Your task to perform on an android device: Search for pizza restaurants on Maps Image 0: 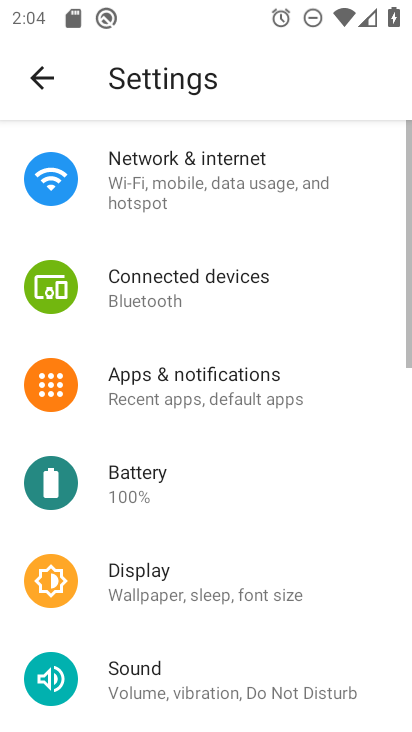
Step 0: press home button
Your task to perform on an android device: Search for pizza restaurants on Maps Image 1: 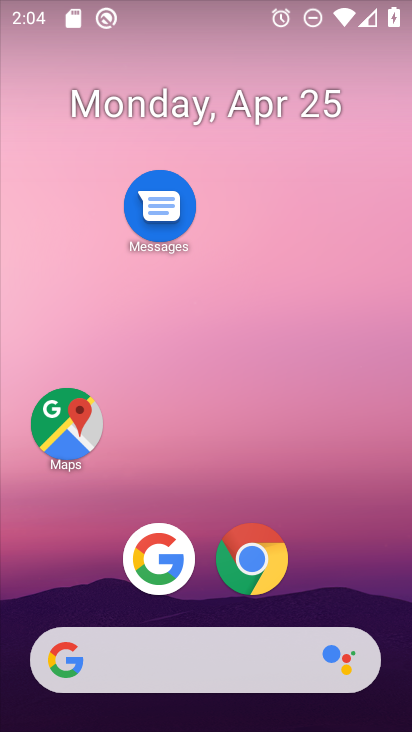
Step 1: click (68, 430)
Your task to perform on an android device: Search for pizza restaurants on Maps Image 2: 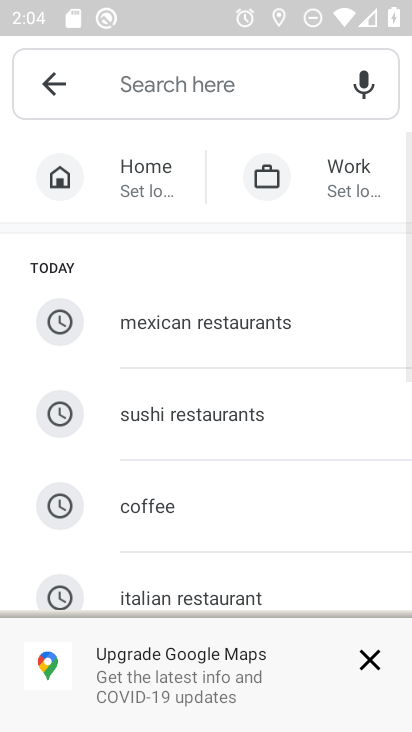
Step 2: click (178, 88)
Your task to perform on an android device: Search for pizza restaurants on Maps Image 3: 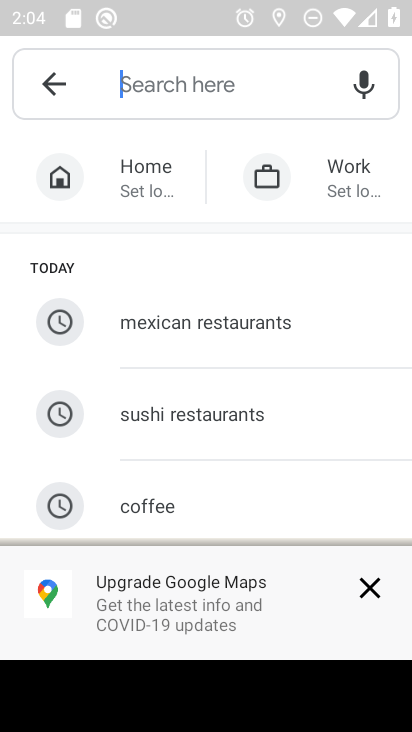
Step 3: drag from (238, 459) to (240, 137)
Your task to perform on an android device: Search for pizza restaurants on Maps Image 4: 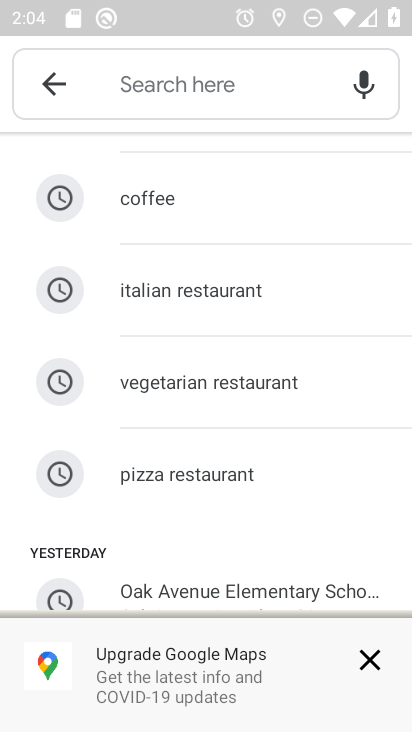
Step 4: click (161, 478)
Your task to perform on an android device: Search for pizza restaurants on Maps Image 5: 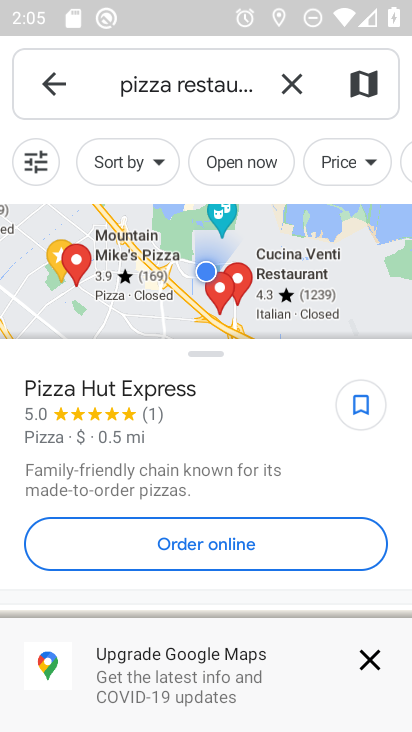
Step 5: task complete